Your task to perform on an android device: Open ESPN.com Image 0: 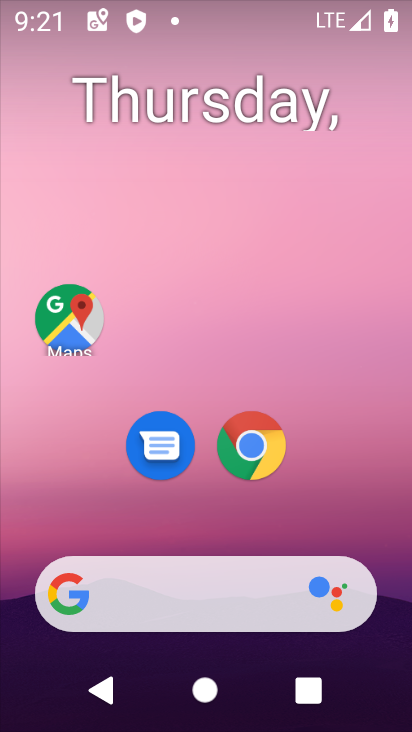
Step 0: click (270, 446)
Your task to perform on an android device: Open ESPN.com Image 1: 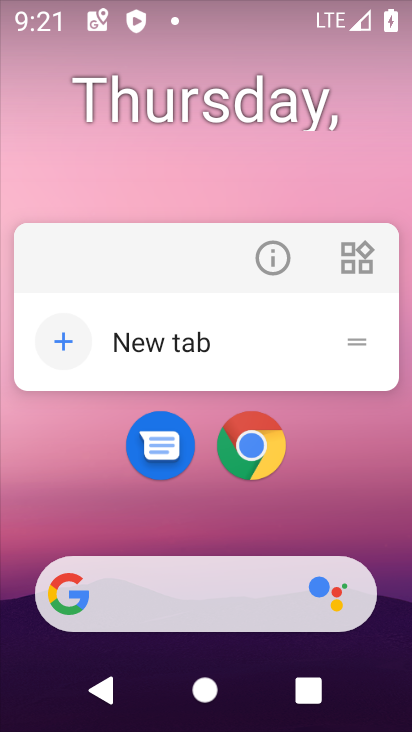
Step 1: click (260, 448)
Your task to perform on an android device: Open ESPN.com Image 2: 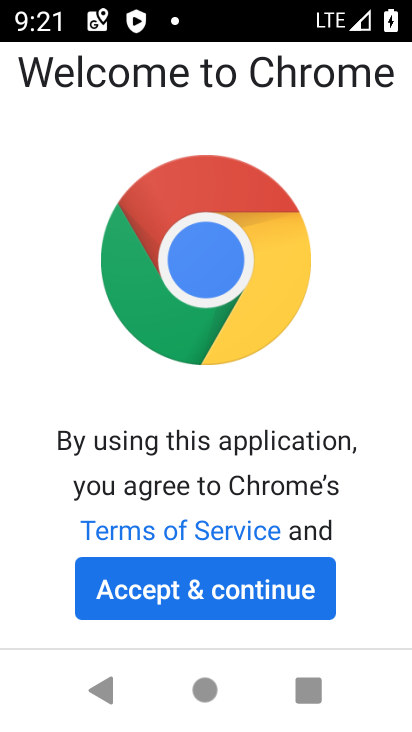
Step 2: click (283, 588)
Your task to perform on an android device: Open ESPN.com Image 3: 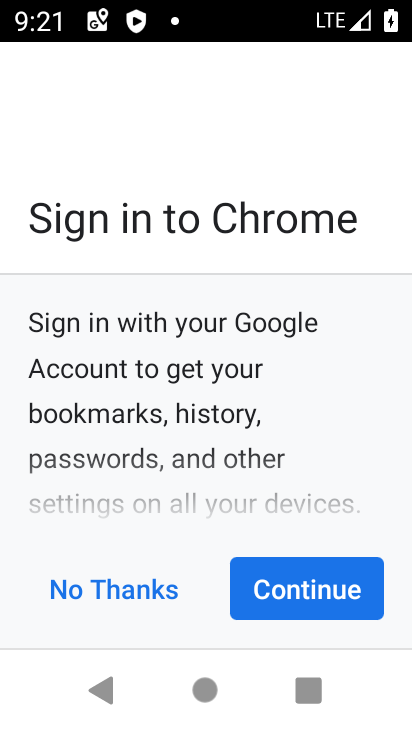
Step 3: click (296, 586)
Your task to perform on an android device: Open ESPN.com Image 4: 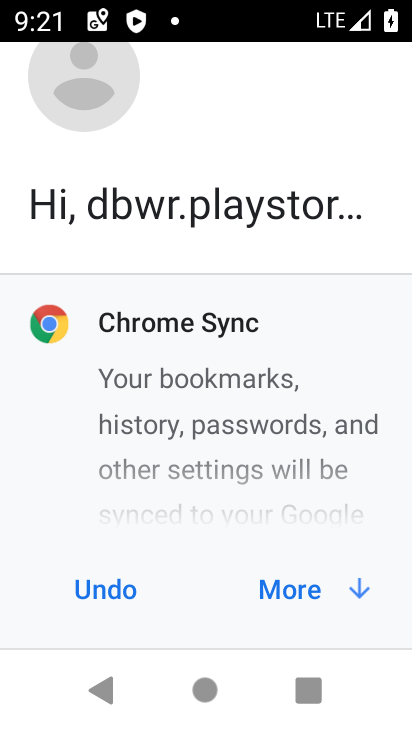
Step 4: click (296, 585)
Your task to perform on an android device: Open ESPN.com Image 5: 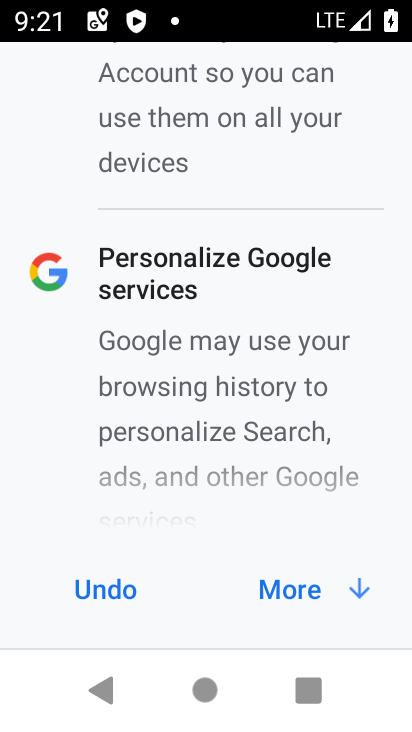
Step 5: click (296, 579)
Your task to perform on an android device: Open ESPN.com Image 6: 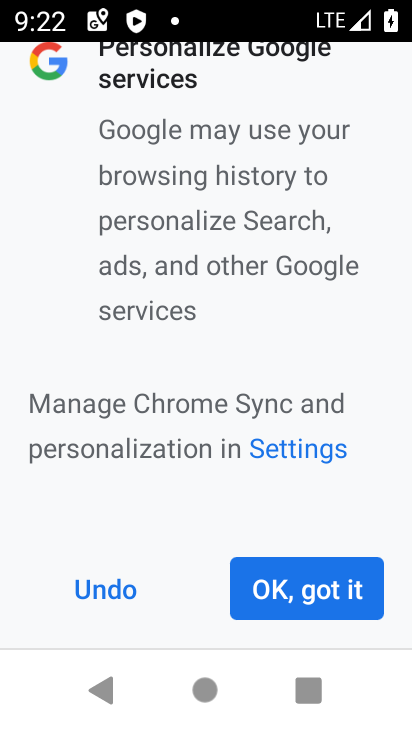
Step 6: click (340, 604)
Your task to perform on an android device: Open ESPN.com Image 7: 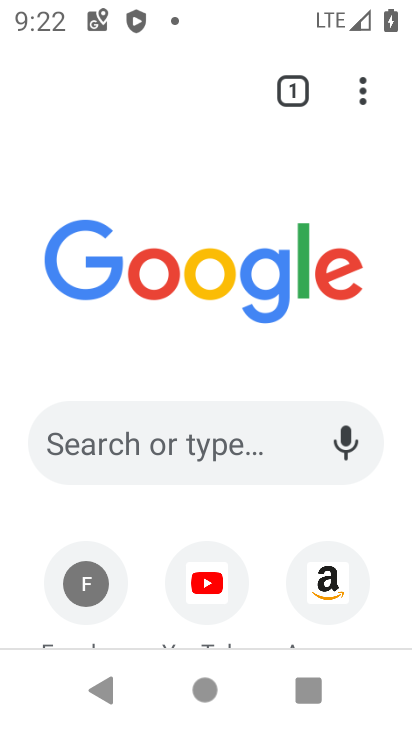
Step 7: drag from (136, 576) to (240, 323)
Your task to perform on an android device: Open ESPN.com Image 8: 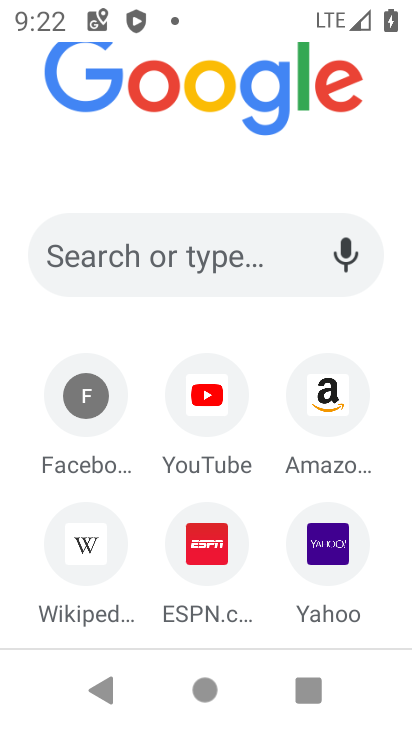
Step 8: click (223, 563)
Your task to perform on an android device: Open ESPN.com Image 9: 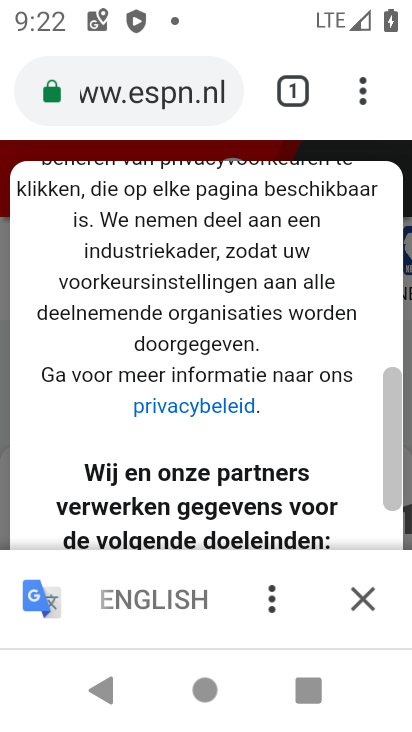
Step 9: click (102, 606)
Your task to perform on an android device: Open ESPN.com Image 10: 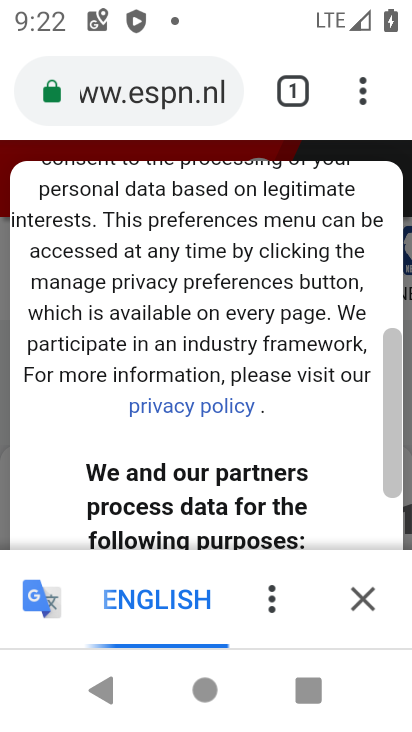
Step 10: click (373, 602)
Your task to perform on an android device: Open ESPN.com Image 11: 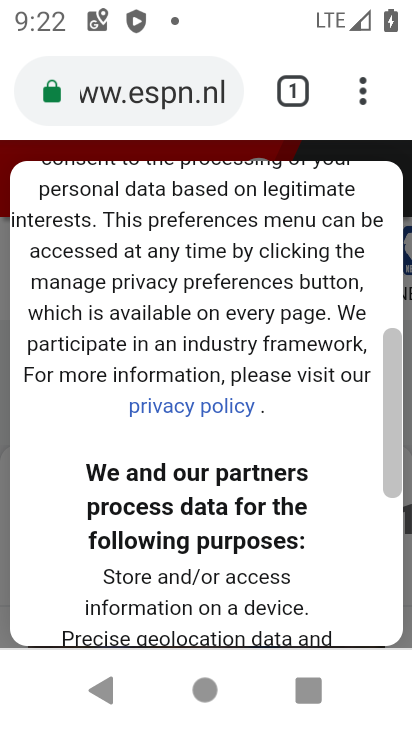
Step 11: drag from (245, 555) to (373, 205)
Your task to perform on an android device: Open ESPN.com Image 12: 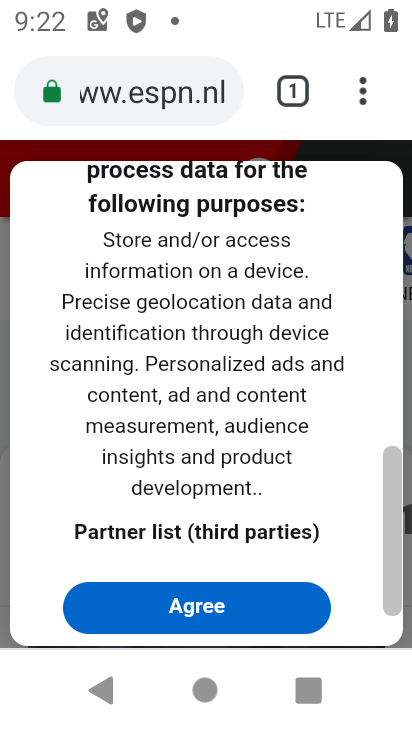
Step 12: drag from (211, 610) to (310, 327)
Your task to perform on an android device: Open ESPN.com Image 13: 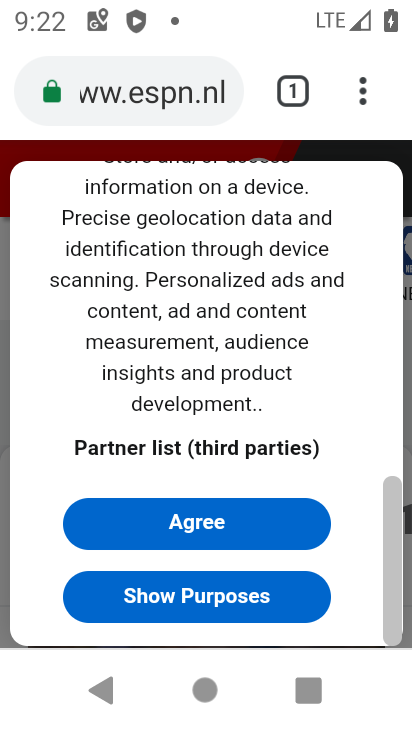
Step 13: click (192, 529)
Your task to perform on an android device: Open ESPN.com Image 14: 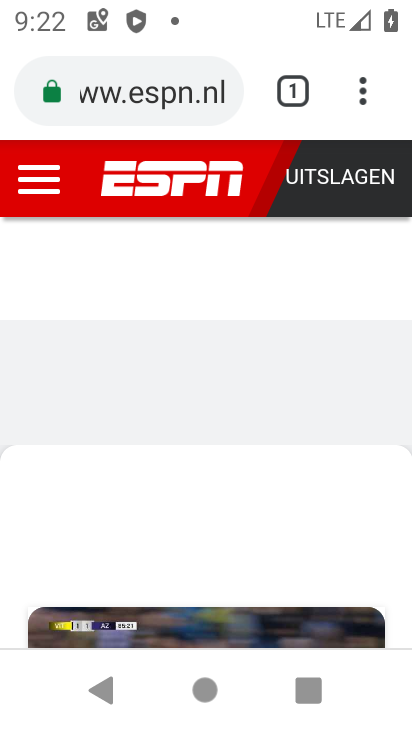
Step 14: task complete